Your task to perform on an android device: Open Google Maps Image 0: 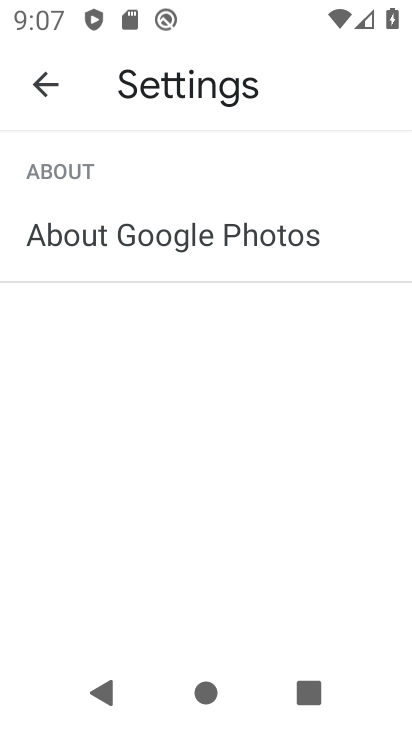
Step 0: press home button
Your task to perform on an android device: Open Google Maps Image 1: 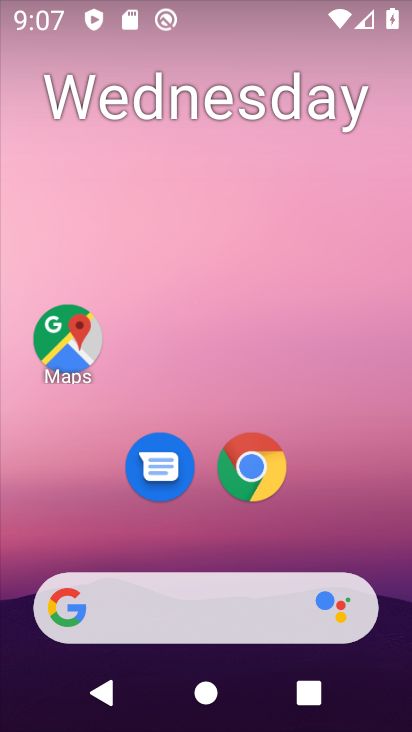
Step 1: click (67, 328)
Your task to perform on an android device: Open Google Maps Image 2: 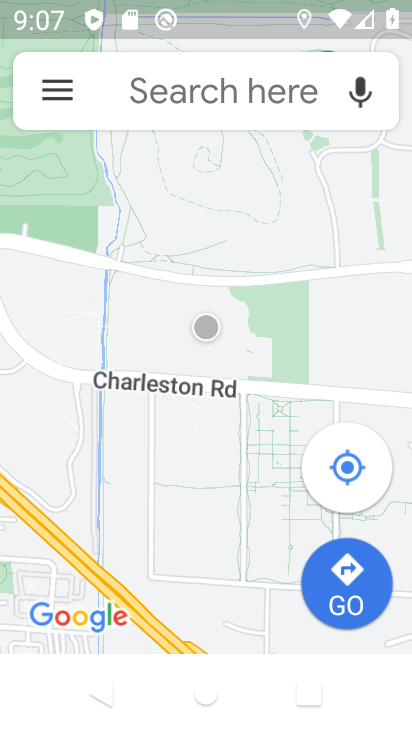
Step 2: task complete